Your task to perform on an android device: uninstall "Adobe Express: Graphic Design" Image 0: 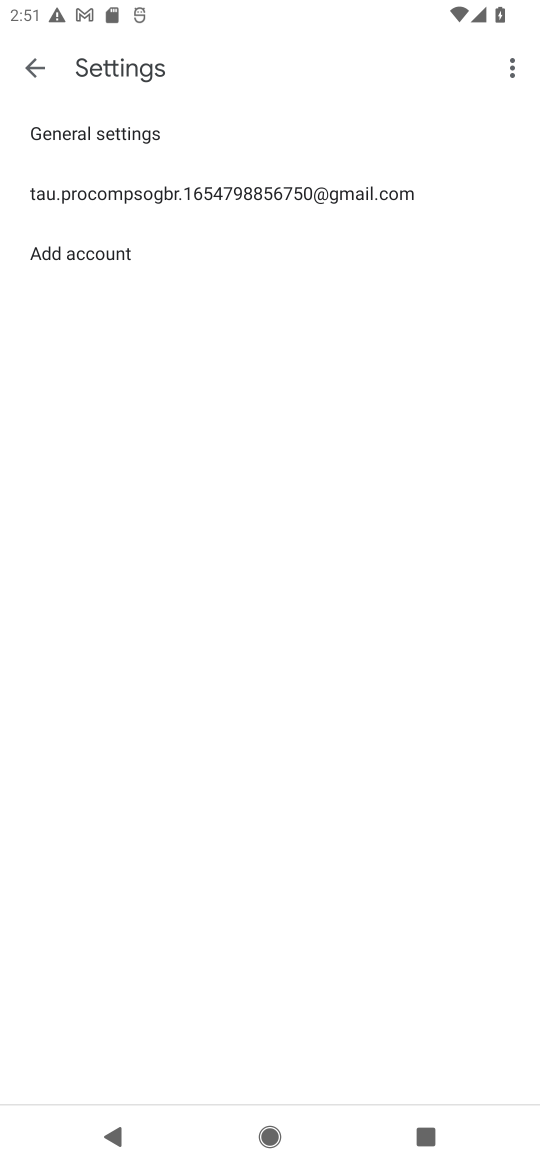
Step 0: press home button
Your task to perform on an android device: uninstall "Adobe Express: Graphic Design" Image 1: 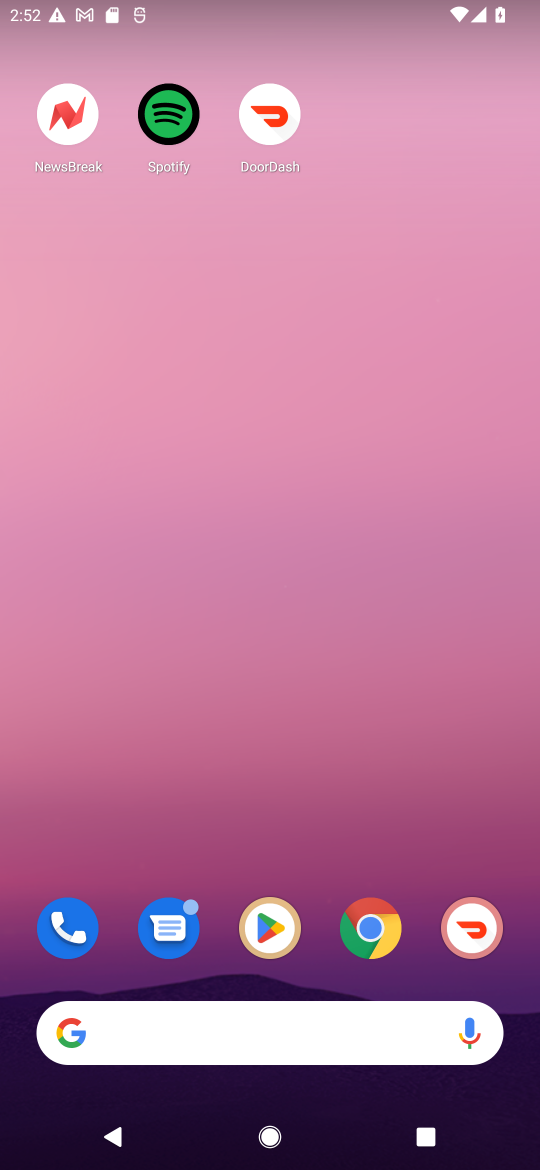
Step 1: click (259, 927)
Your task to perform on an android device: uninstall "Adobe Express: Graphic Design" Image 2: 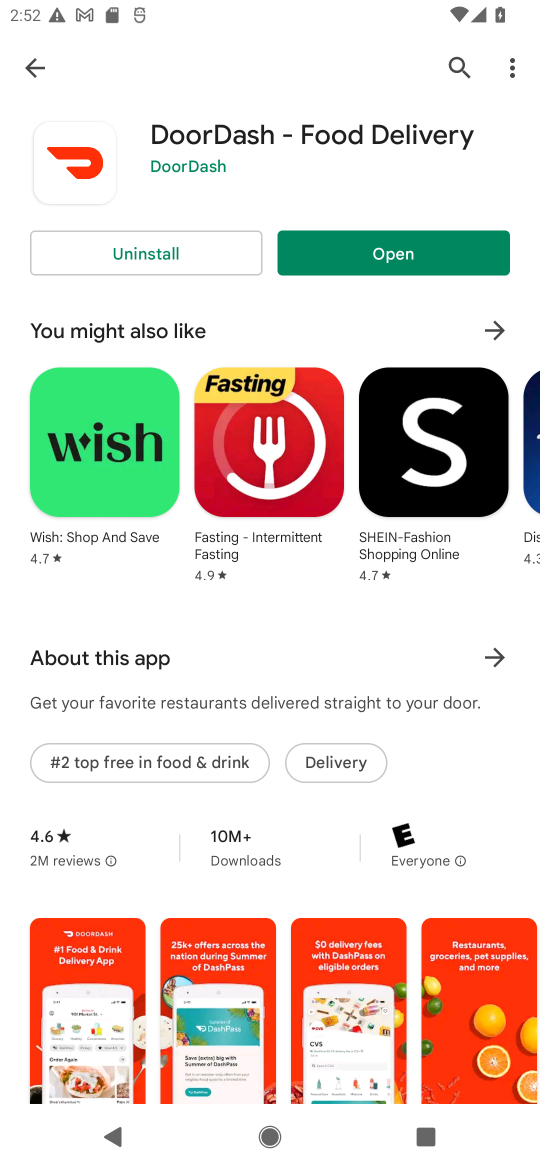
Step 2: click (32, 63)
Your task to perform on an android device: uninstall "Adobe Express: Graphic Design" Image 3: 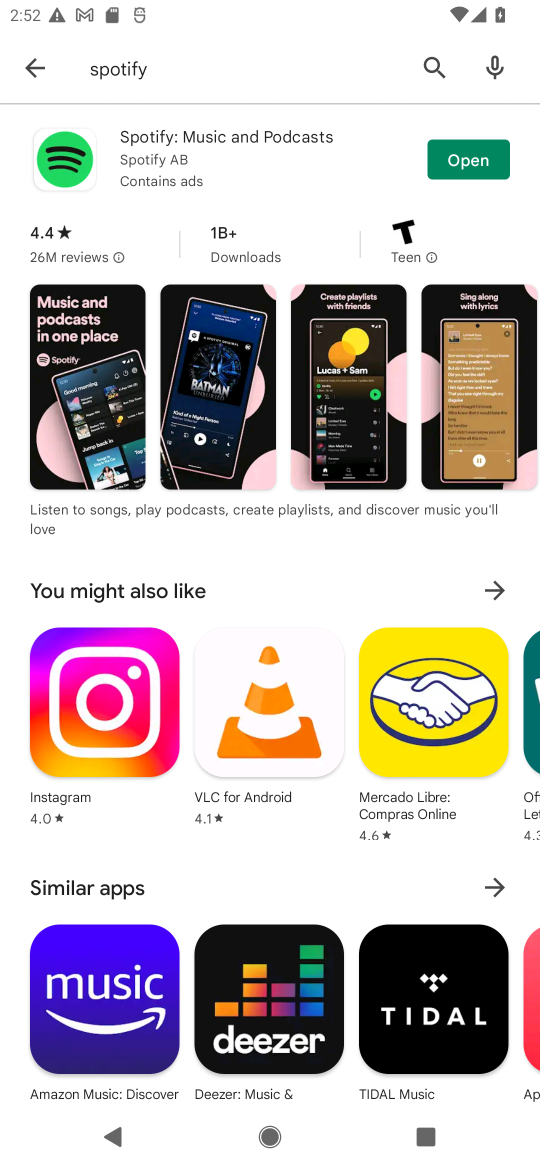
Step 3: click (219, 75)
Your task to perform on an android device: uninstall "Adobe Express: Graphic Design" Image 4: 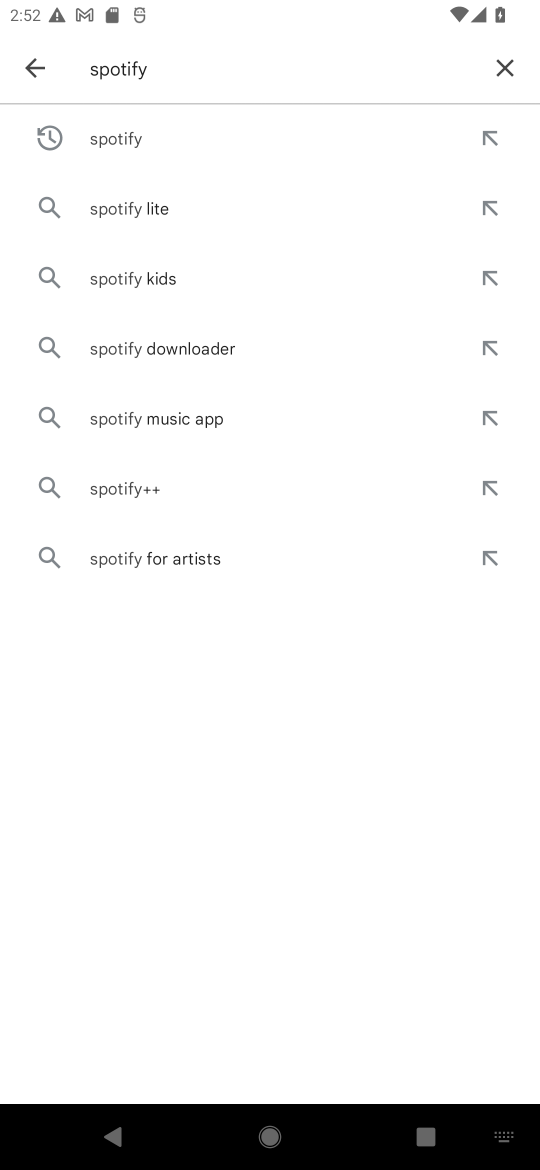
Step 4: click (507, 60)
Your task to perform on an android device: uninstall "Adobe Express: Graphic Design" Image 5: 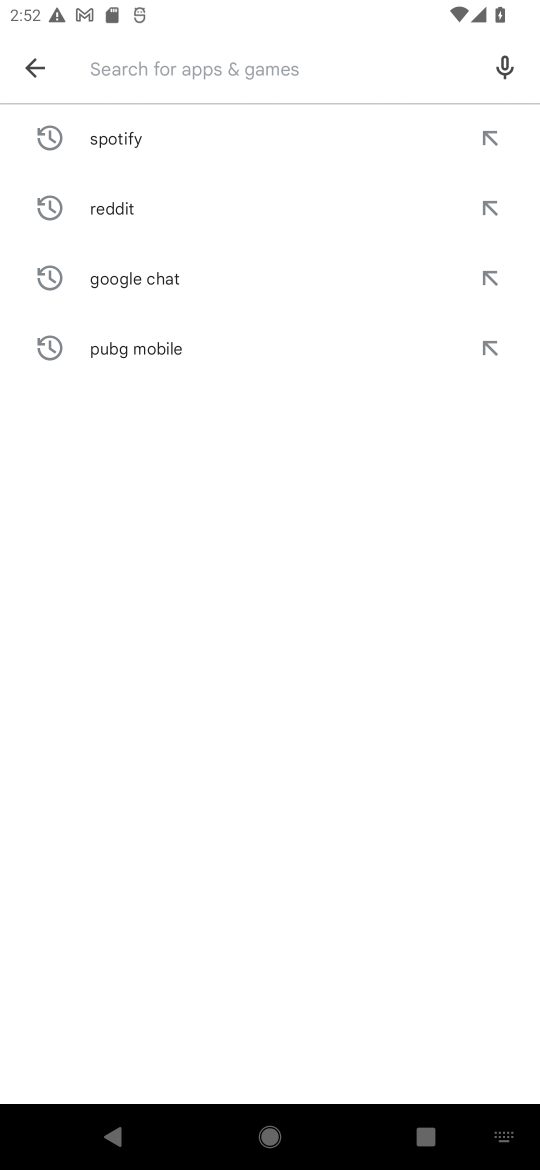
Step 5: type "Adobe Express"
Your task to perform on an android device: uninstall "Adobe Express: Graphic Design" Image 6: 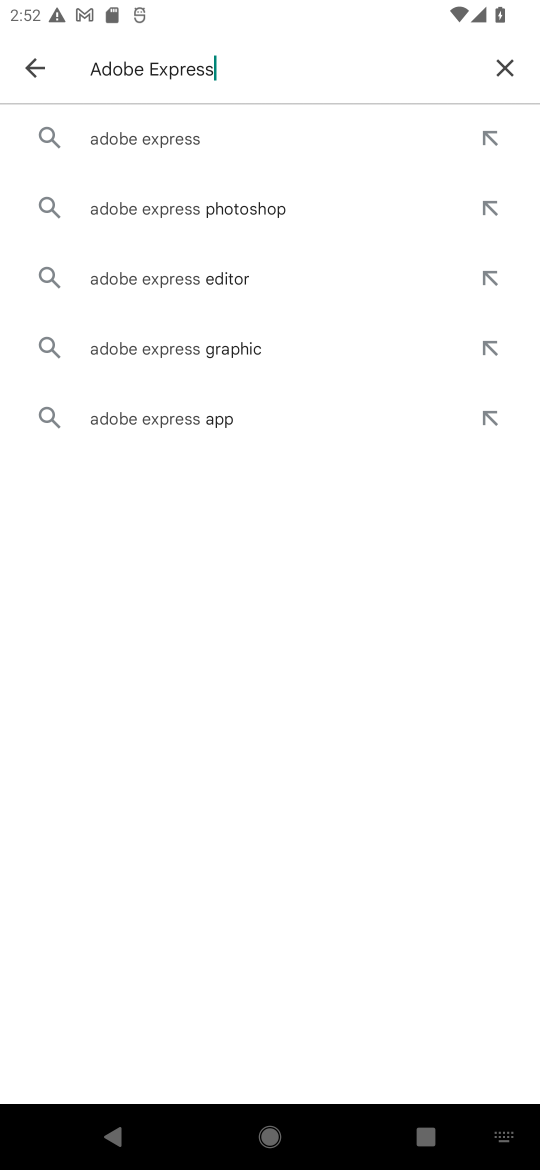
Step 6: click (209, 155)
Your task to perform on an android device: uninstall "Adobe Express: Graphic Design" Image 7: 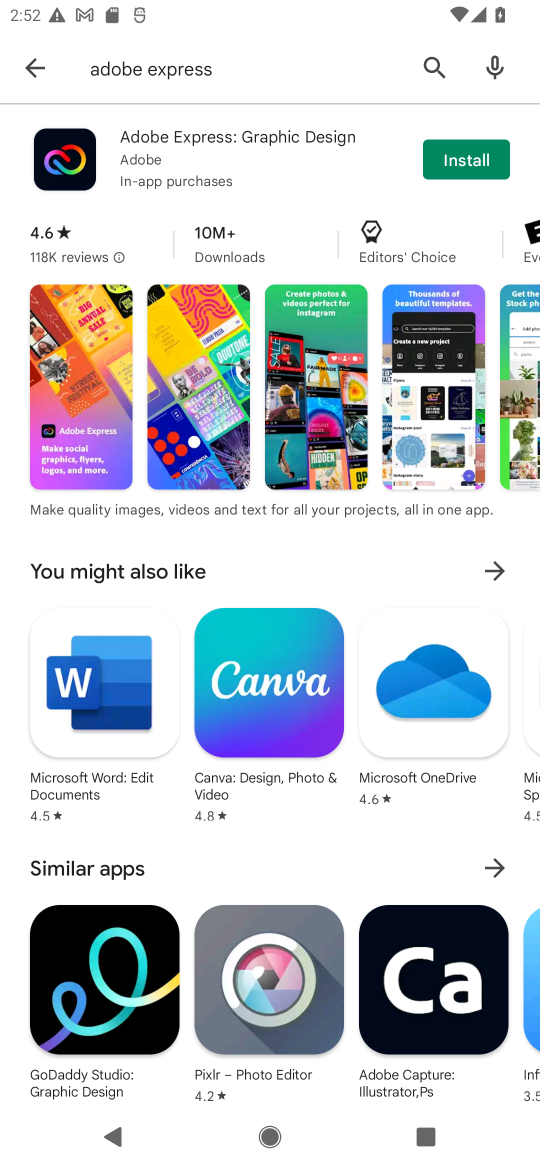
Step 7: task complete